Your task to perform on an android device: Go to Amazon Image 0: 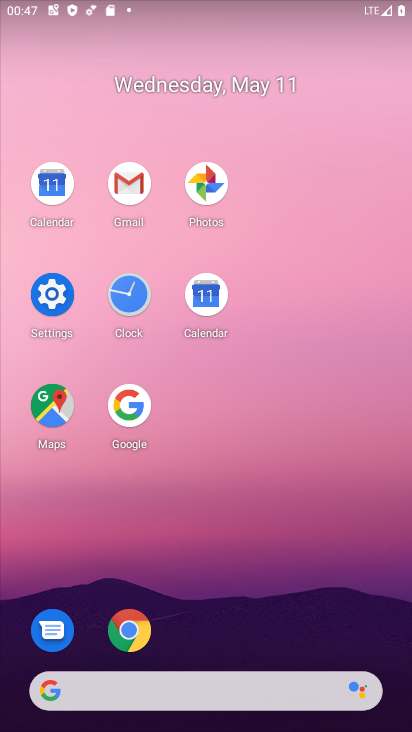
Step 0: click (140, 619)
Your task to perform on an android device: Go to Amazon Image 1: 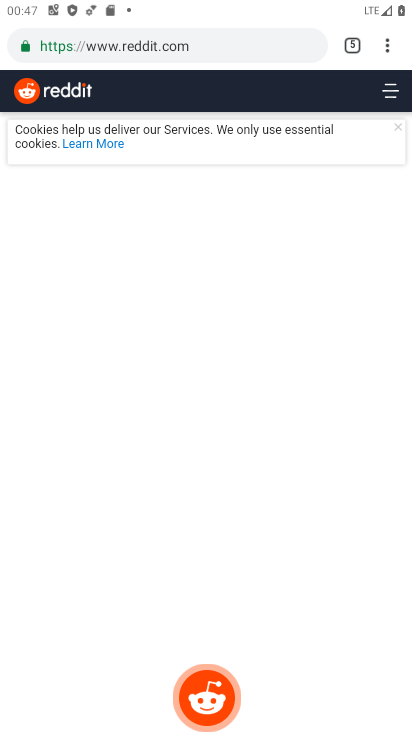
Step 1: click (351, 47)
Your task to perform on an android device: Go to Amazon Image 2: 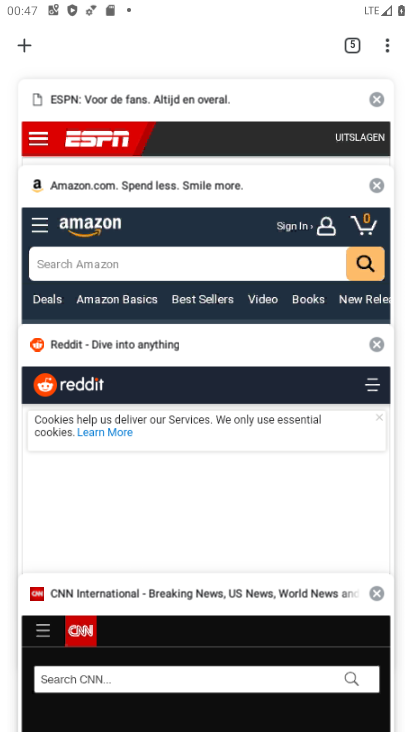
Step 2: click (193, 242)
Your task to perform on an android device: Go to Amazon Image 3: 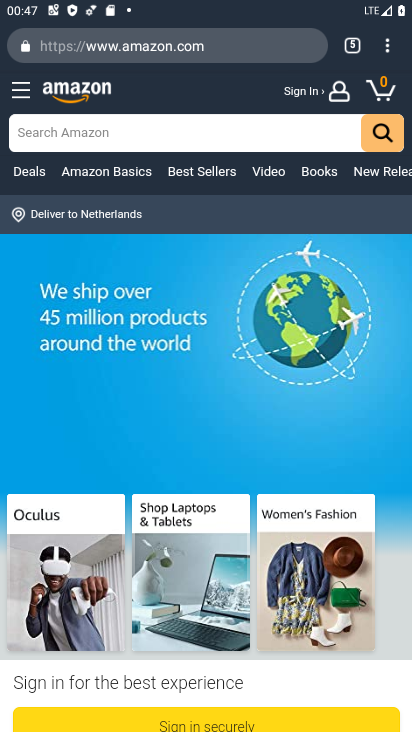
Step 3: task complete